Your task to perform on an android device: turn off javascript in the chrome app Image 0: 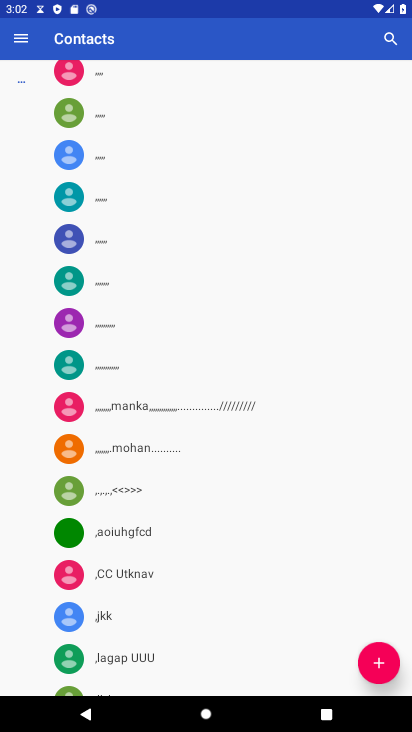
Step 0: press home button
Your task to perform on an android device: turn off javascript in the chrome app Image 1: 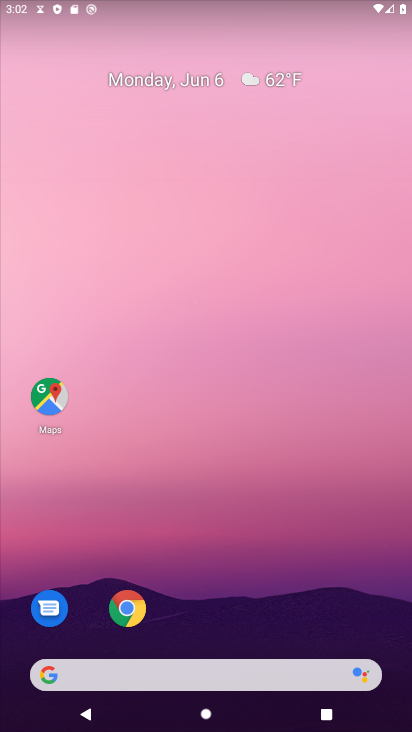
Step 1: click (129, 616)
Your task to perform on an android device: turn off javascript in the chrome app Image 2: 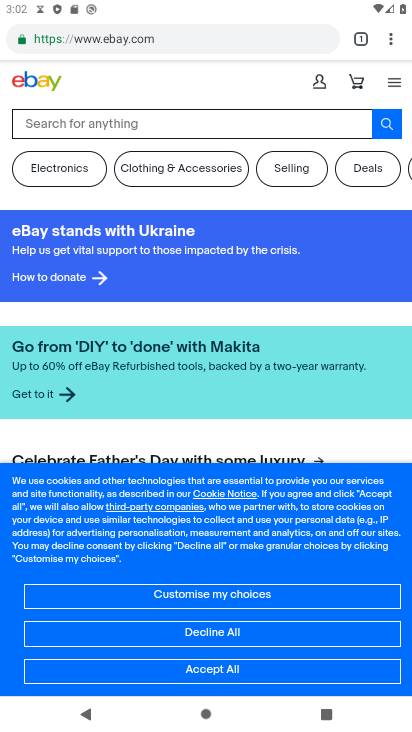
Step 2: click (387, 40)
Your task to perform on an android device: turn off javascript in the chrome app Image 3: 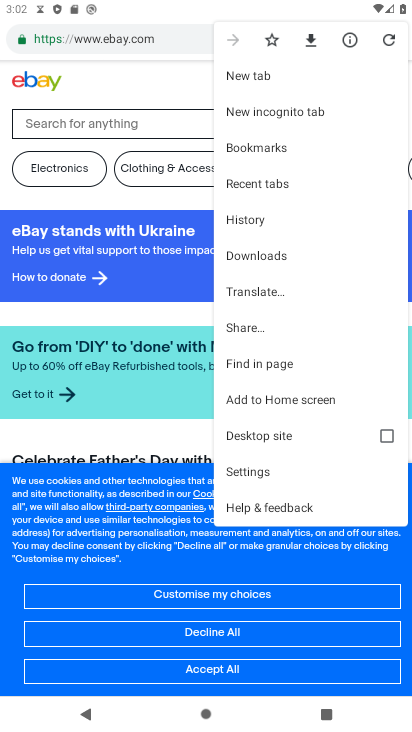
Step 3: click (279, 473)
Your task to perform on an android device: turn off javascript in the chrome app Image 4: 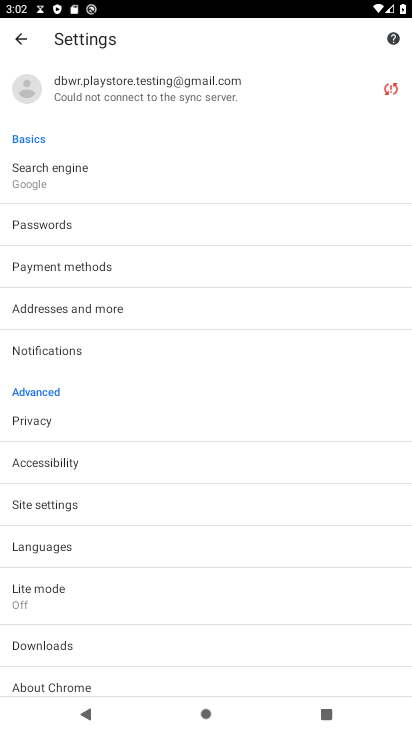
Step 4: click (86, 511)
Your task to perform on an android device: turn off javascript in the chrome app Image 5: 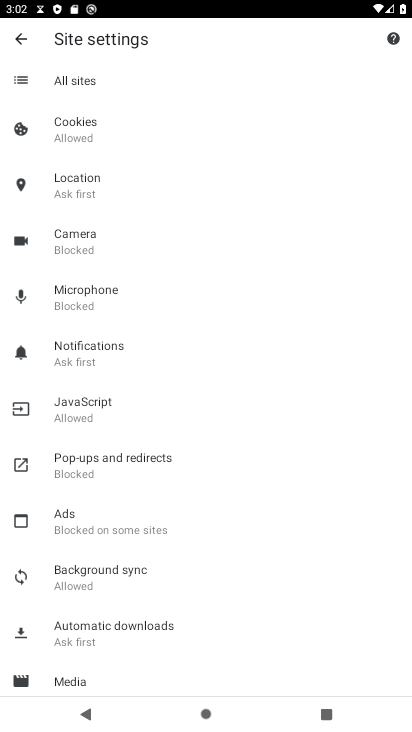
Step 5: click (82, 403)
Your task to perform on an android device: turn off javascript in the chrome app Image 6: 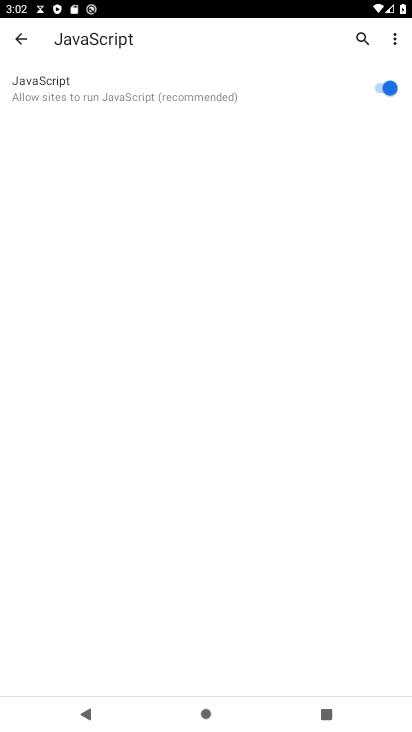
Step 6: click (383, 80)
Your task to perform on an android device: turn off javascript in the chrome app Image 7: 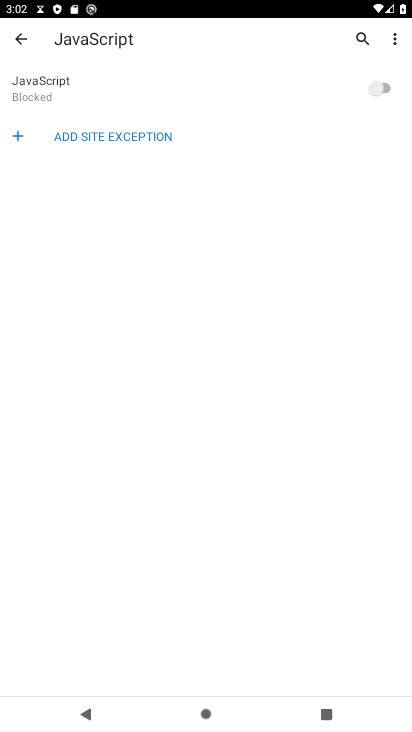
Step 7: task complete